Your task to perform on an android device: turn on improve location accuracy Image 0: 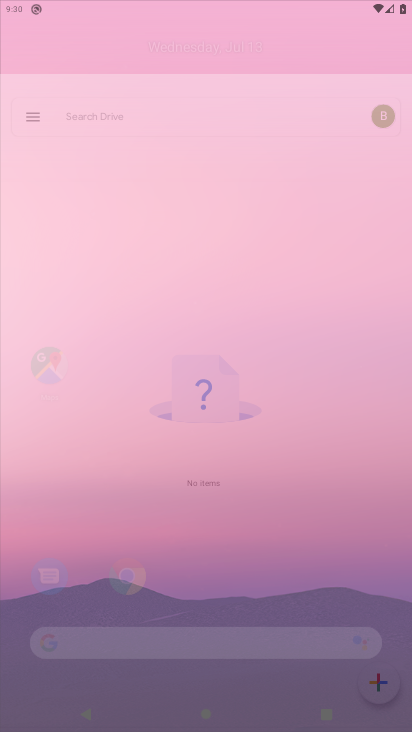
Step 0: click (60, 413)
Your task to perform on an android device: turn on improve location accuracy Image 1: 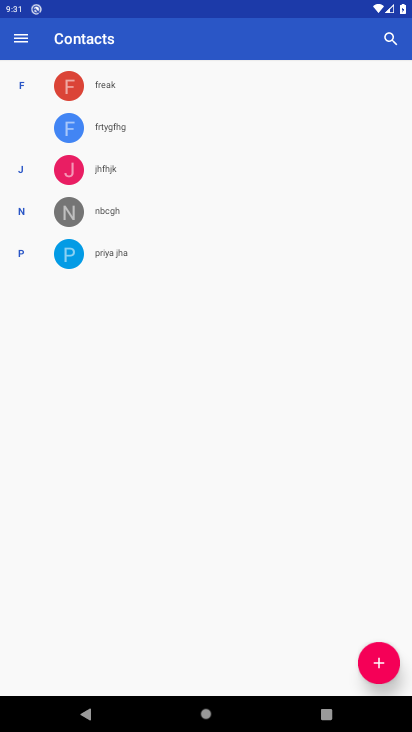
Step 1: press home button
Your task to perform on an android device: turn on improve location accuracy Image 2: 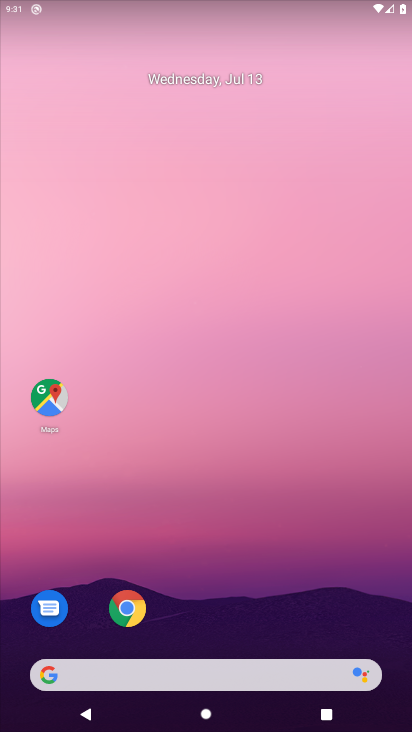
Step 2: drag from (29, 707) to (331, 4)
Your task to perform on an android device: turn on improve location accuracy Image 3: 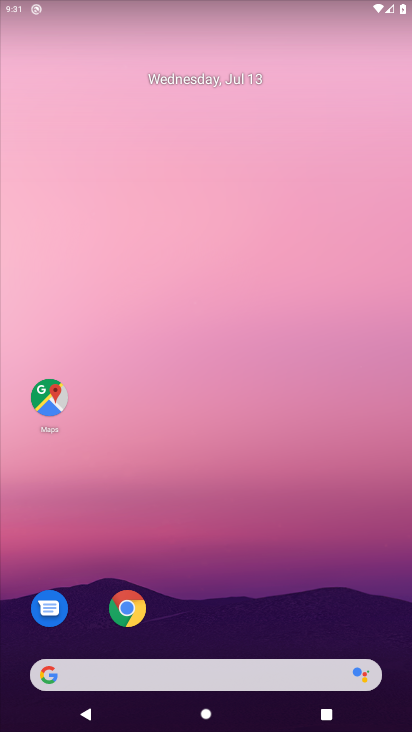
Step 3: drag from (41, 711) to (183, 171)
Your task to perform on an android device: turn on improve location accuracy Image 4: 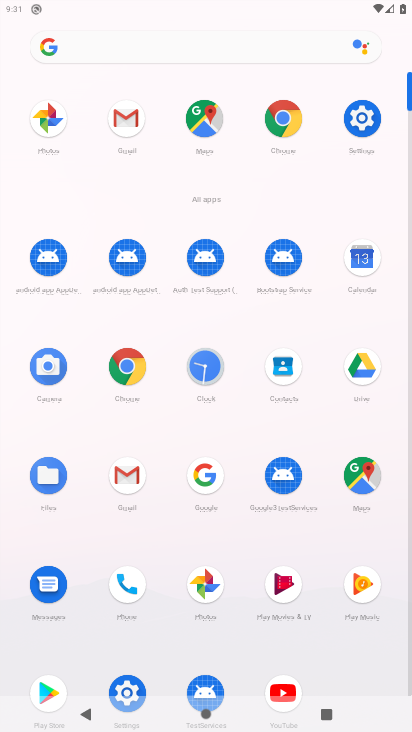
Step 4: click (119, 687)
Your task to perform on an android device: turn on improve location accuracy Image 5: 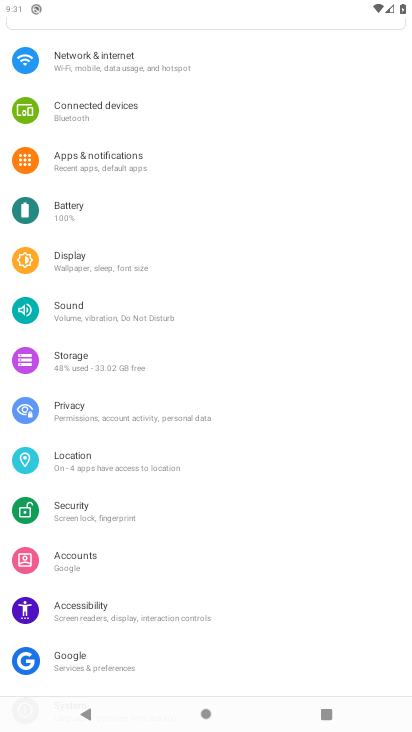
Step 5: click (92, 456)
Your task to perform on an android device: turn on improve location accuracy Image 6: 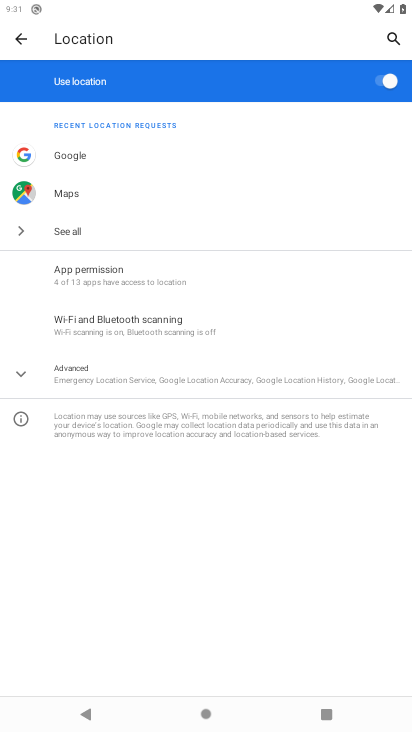
Step 6: click (92, 368)
Your task to perform on an android device: turn on improve location accuracy Image 7: 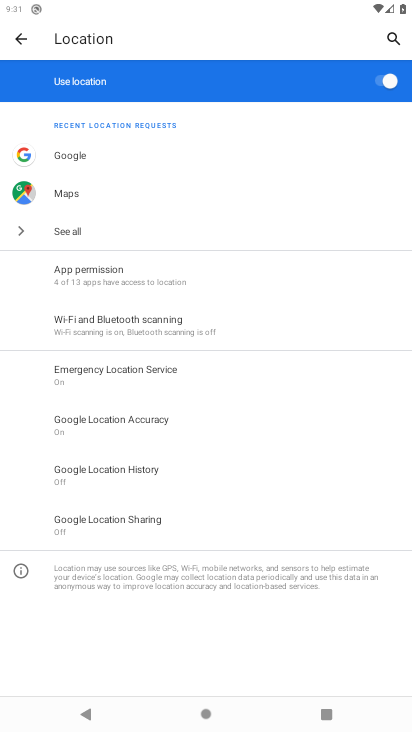
Step 7: click (117, 427)
Your task to perform on an android device: turn on improve location accuracy Image 8: 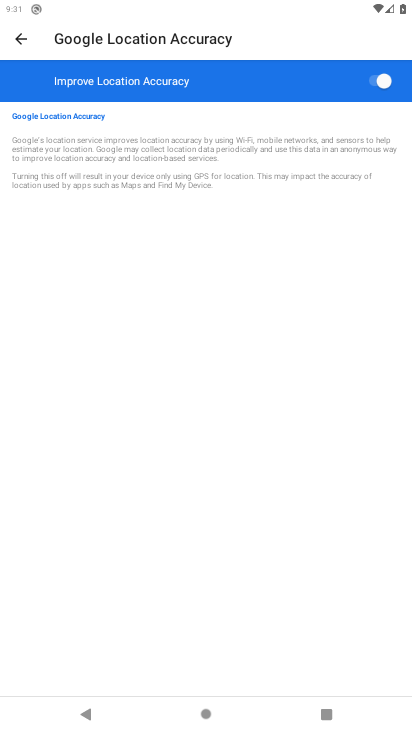
Step 8: task complete